Your task to perform on an android device: Search for pizza restaurants on Maps Image 0: 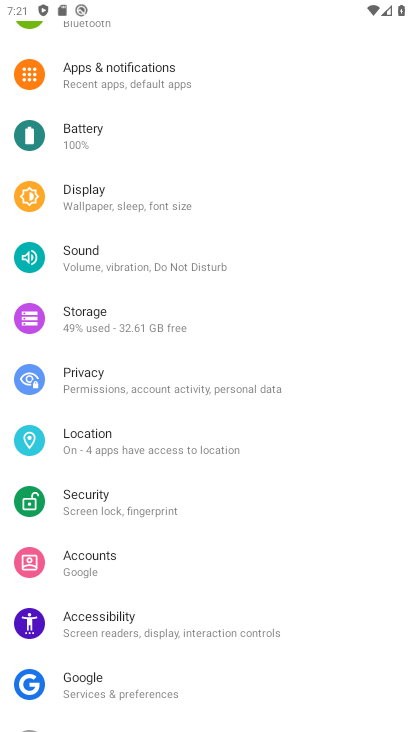
Step 0: press home button
Your task to perform on an android device: Search for pizza restaurants on Maps Image 1: 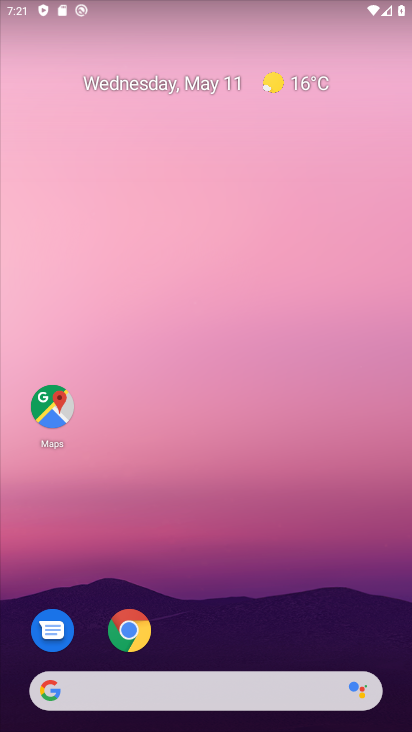
Step 1: drag from (310, 552) to (189, 20)
Your task to perform on an android device: Search for pizza restaurants on Maps Image 2: 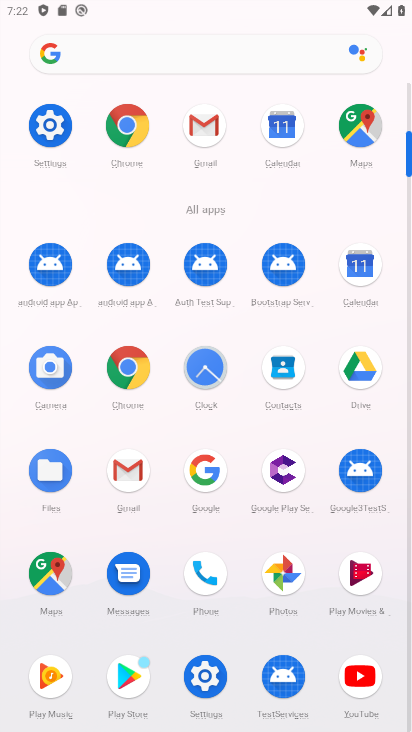
Step 2: click (346, 144)
Your task to perform on an android device: Search for pizza restaurants on Maps Image 3: 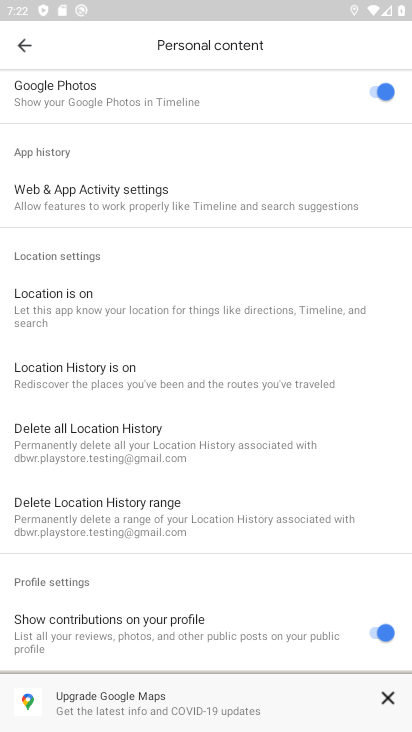
Step 3: press home button
Your task to perform on an android device: Search for pizza restaurants on Maps Image 4: 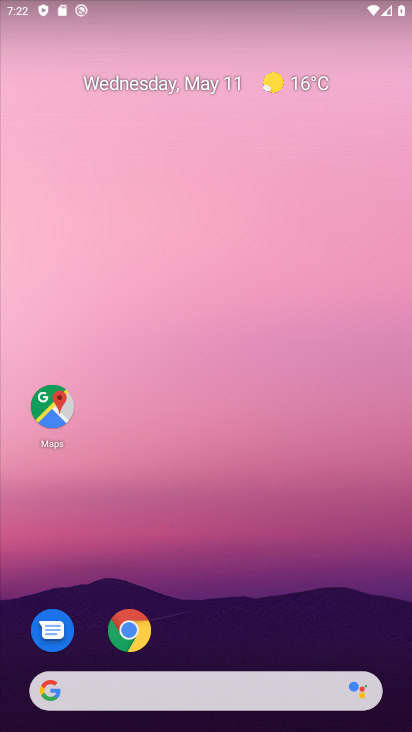
Step 4: drag from (245, 459) to (405, 77)
Your task to perform on an android device: Search for pizza restaurants on Maps Image 5: 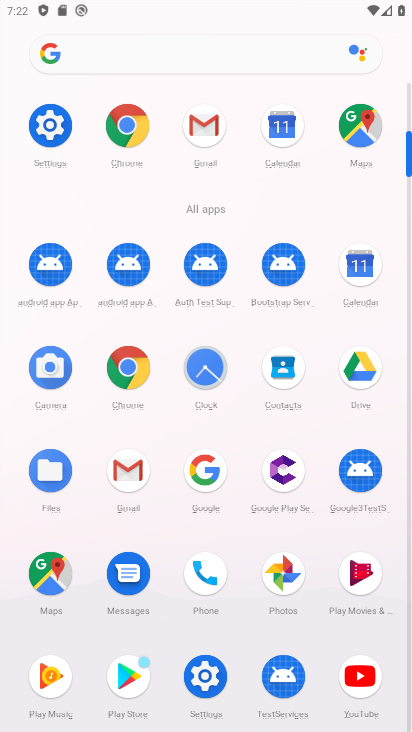
Step 5: click (357, 128)
Your task to perform on an android device: Search for pizza restaurants on Maps Image 6: 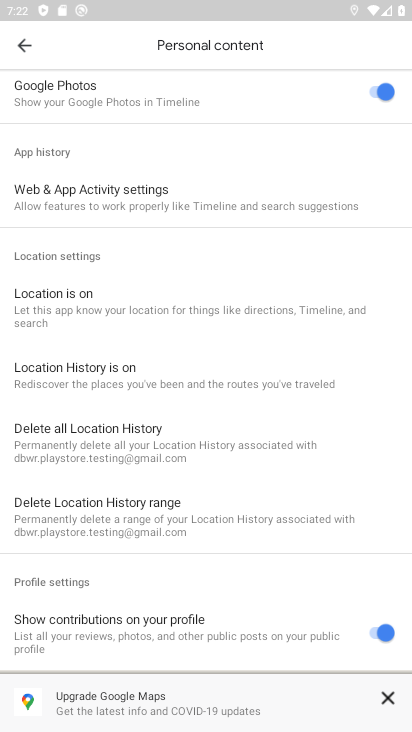
Step 6: click (20, 51)
Your task to perform on an android device: Search for pizza restaurants on Maps Image 7: 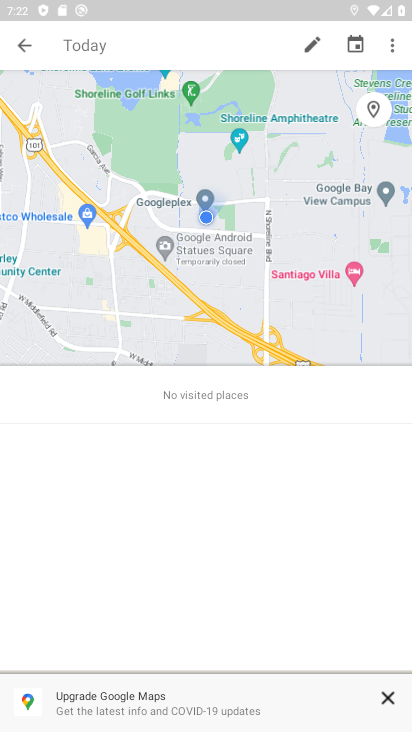
Step 7: click (19, 53)
Your task to perform on an android device: Search for pizza restaurants on Maps Image 8: 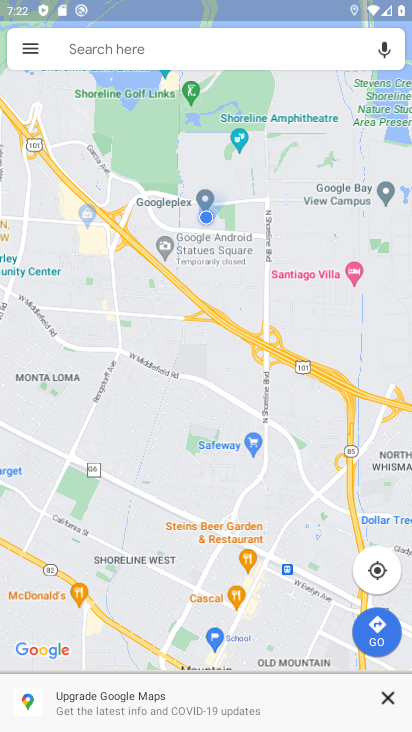
Step 8: click (214, 42)
Your task to perform on an android device: Search for pizza restaurants on Maps Image 9: 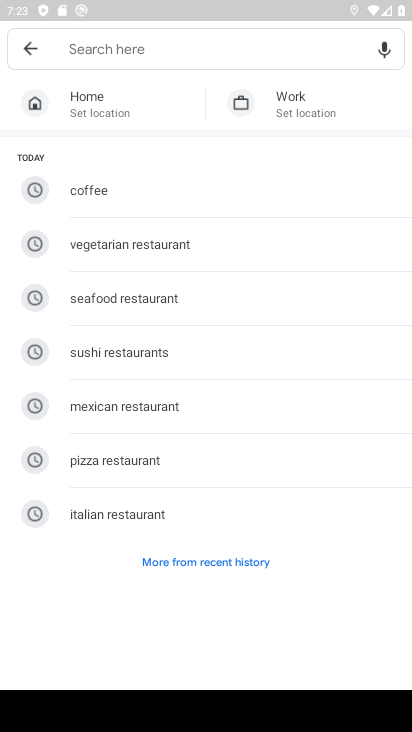
Step 9: click (154, 459)
Your task to perform on an android device: Search for pizza restaurants on Maps Image 10: 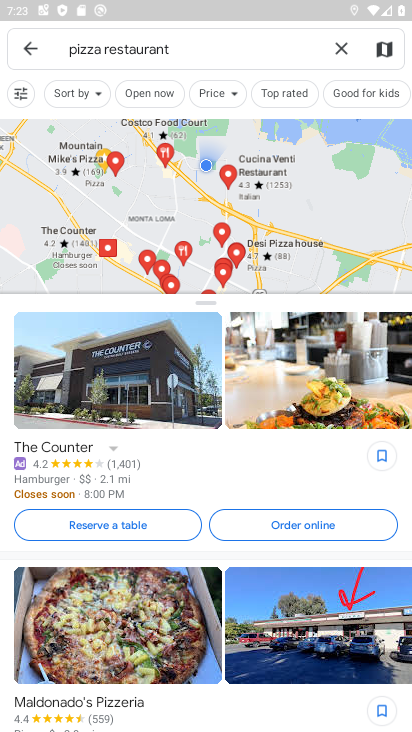
Step 10: task complete